Your task to perform on an android device: turn off notifications in google photos Image 0: 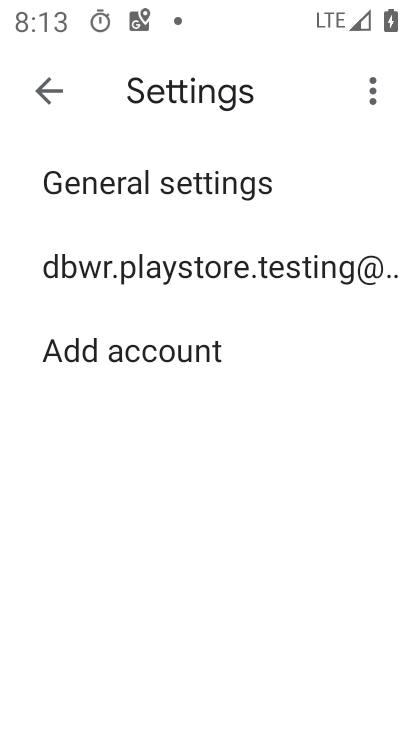
Step 0: press home button
Your task to perform on an android device: turn off notifications in google photos Image 1: 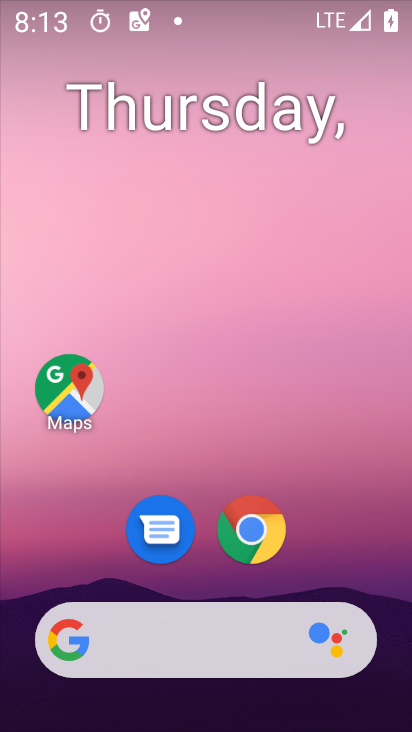
Step 1: drag from (380, 577) to (377, 276)
Your task to perform on an android device: turn off notifications in google photos Image 2: 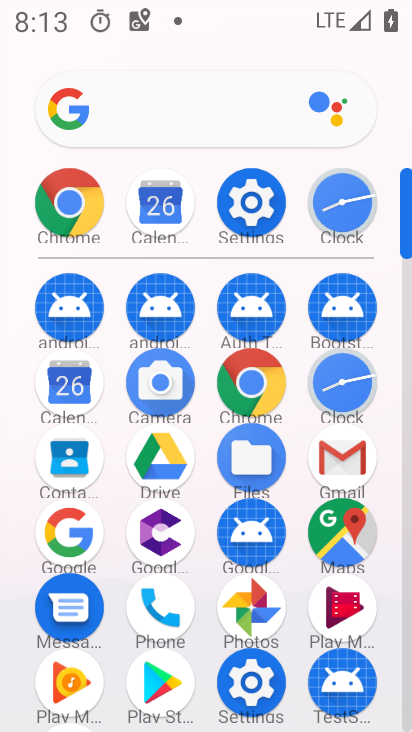
Step 2: click (266, 608)
Your task to perform on an android device: turn off notifications in google photos Image 3: 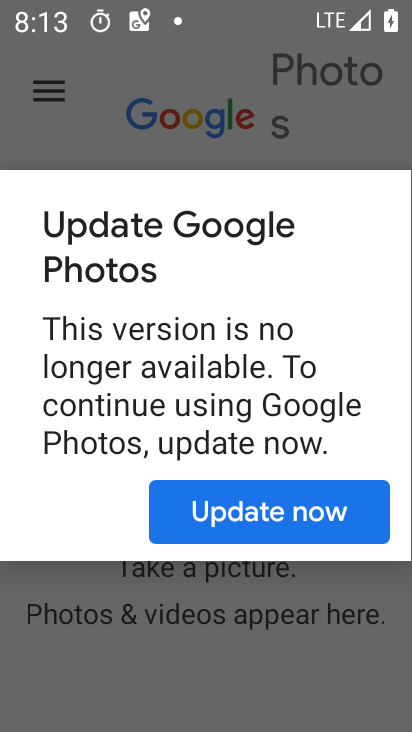
Step 3: click (337, 524)
Your task to perform on an android device: turn off notifications in google photos Image 4: 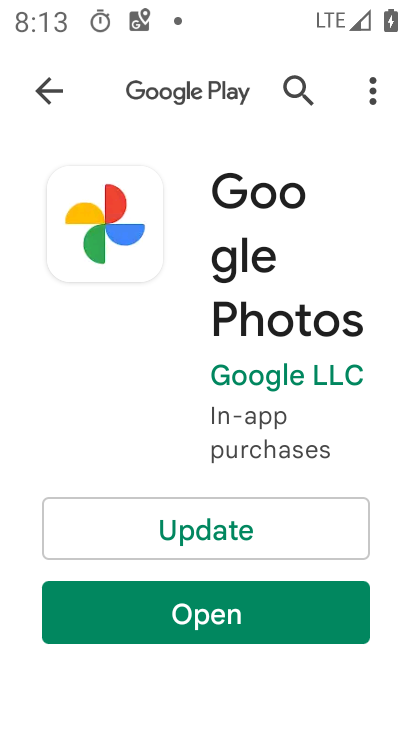
Step 4: click (257, 513)
Your task to perform on an android device: turn off notifications in google photos Image 5: 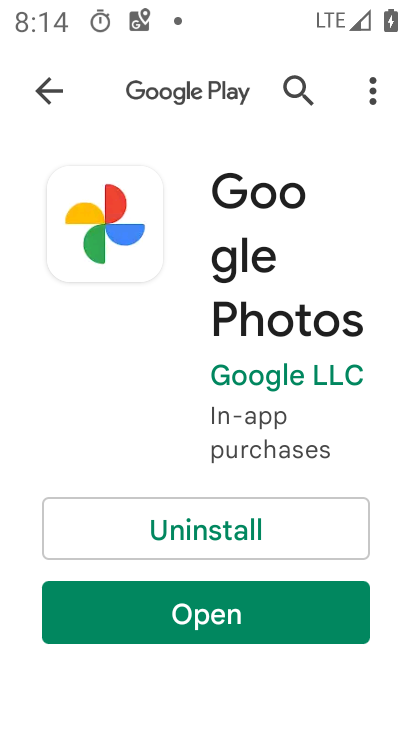
Step 5: click (314, 613)
Your task to perform on an android device: turn off notifications in google photos Image 6: 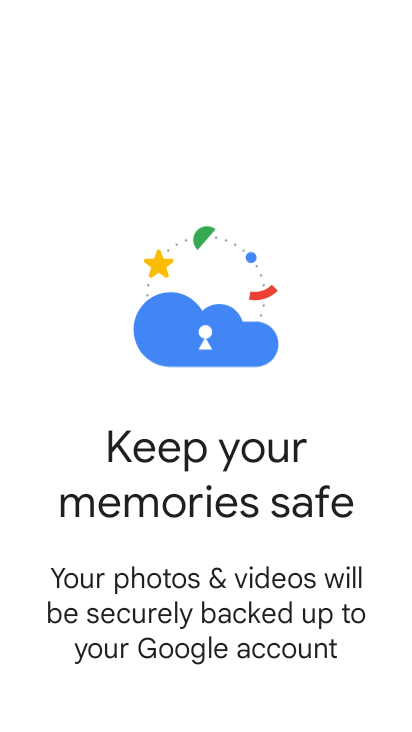
Step 6: drag from (314, 613) to (324, 456)
Your task to perform on an android device: turn off notifications in google photos Image 7: 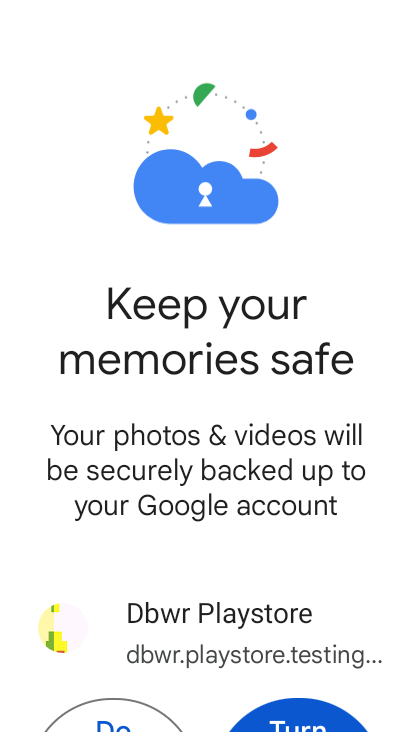
Step 7: drag from (351, 511) to (359, 283)
Your task to perform on an android device: turn off notifications in google photos Image 8: 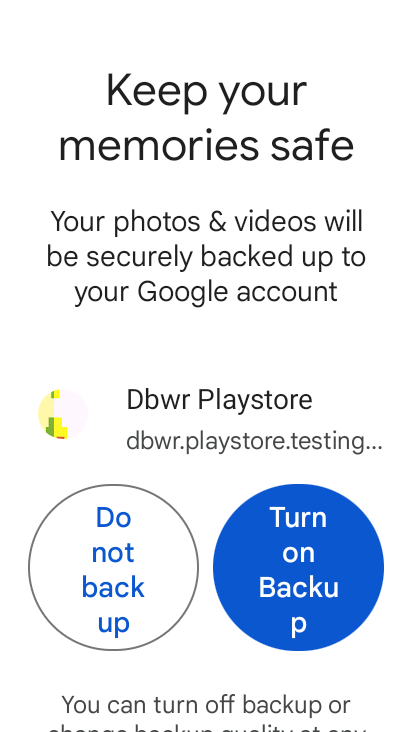
Step 8: click (276, 573)
Your task to perform on an android device: turn off notifications in google photos Image 9: 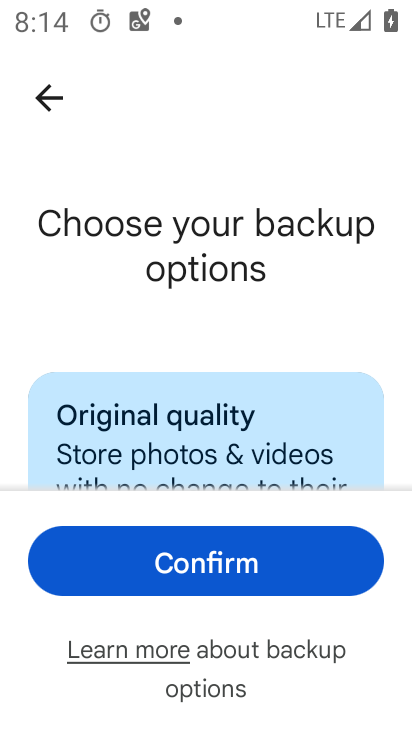
Step 9: click (277, 571)
Your task to perform on an android device: turn off notifications in google photos Image 10: 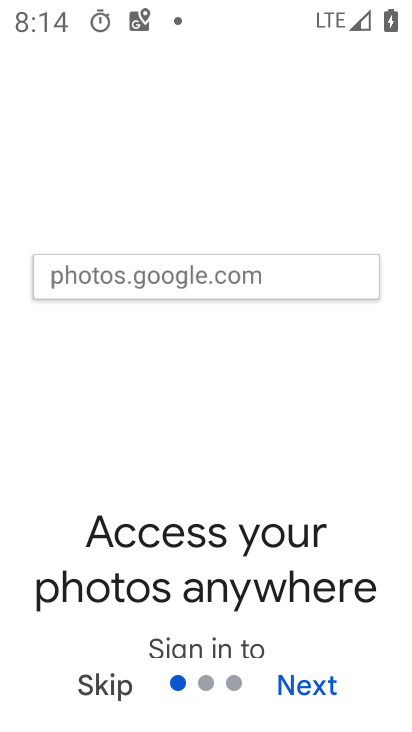
Step 10: click (330, 677)
Your task to perform on an android device: turn off notifications in google photos Image 11: 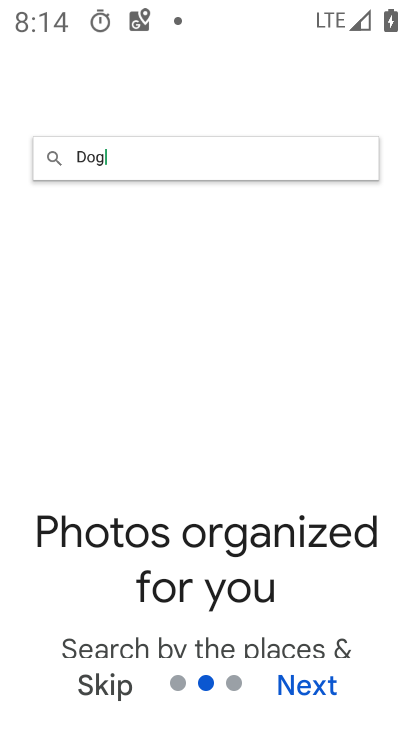
Step 11: click (330, 677)
Your task to perform on an android device: turn off notifications in google photos Image 12: 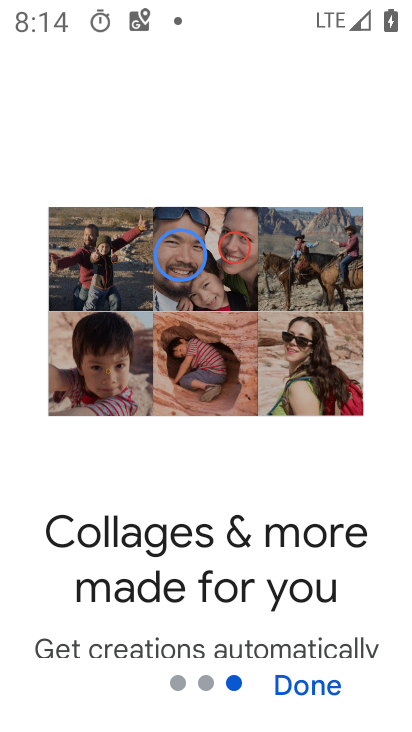
Step 12: click (330, 677)
Your task to perform on an android device: turn off notifications in google photos Image 13: 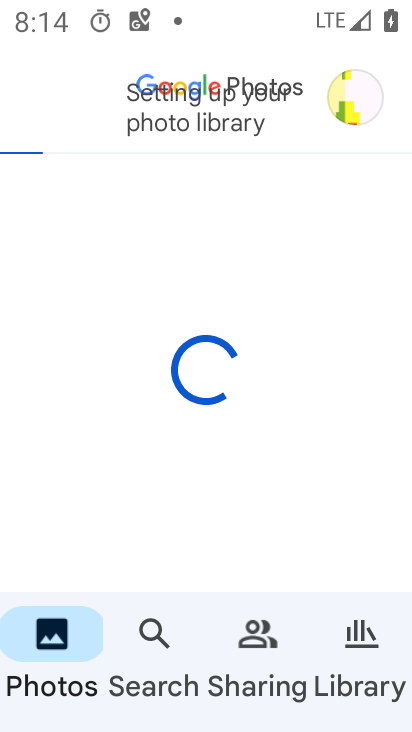
Step 13: click (347, 101)
Your task to perform on an android device: turn off notifications in google photos Image 14: 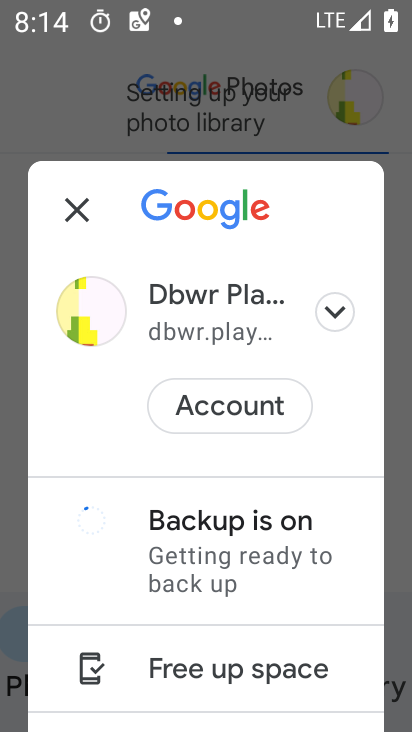
Step 14: drag from (306, 560) to (330, 361)
Your task to perform on an android device: turn off notifications in google photos Image 15: 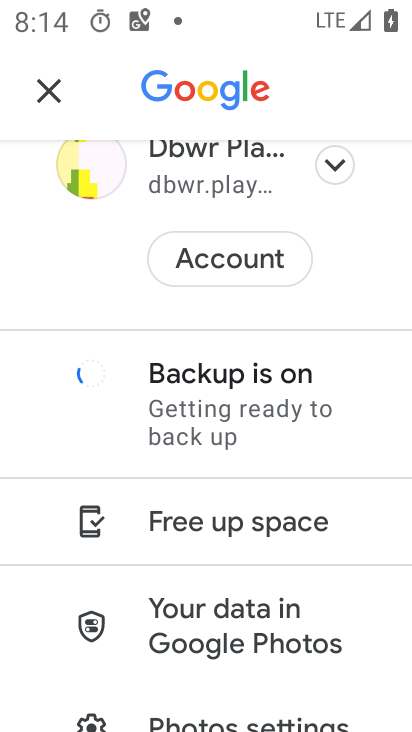
Step 15: drag from (326, 612) to (351, 334)
Your task to perform on an android device: turn off notifications in google photos Image 16: 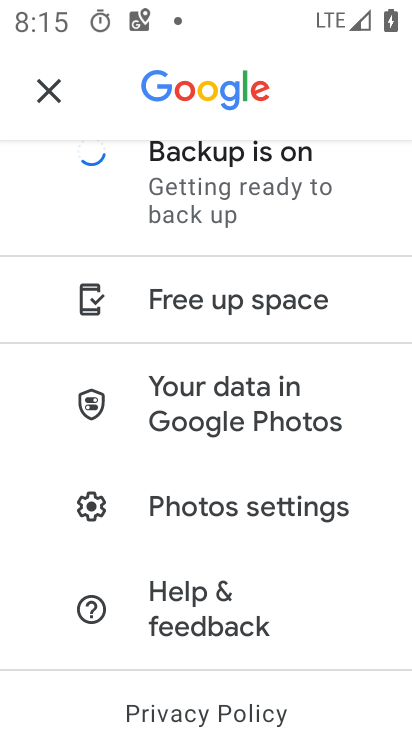
Step 16: click (311, 503)
Your task to perform on an android device: turn off notifications in google photos Image 17: 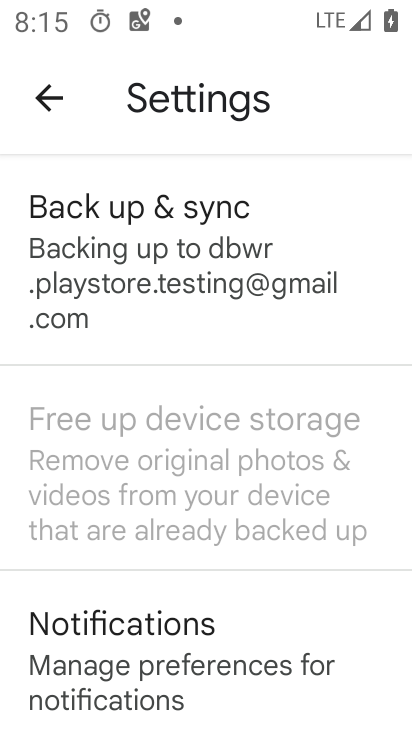
Step 17: click (238, 643)
Your task to perform on an android device: turn off notifications in google photos Image 18: 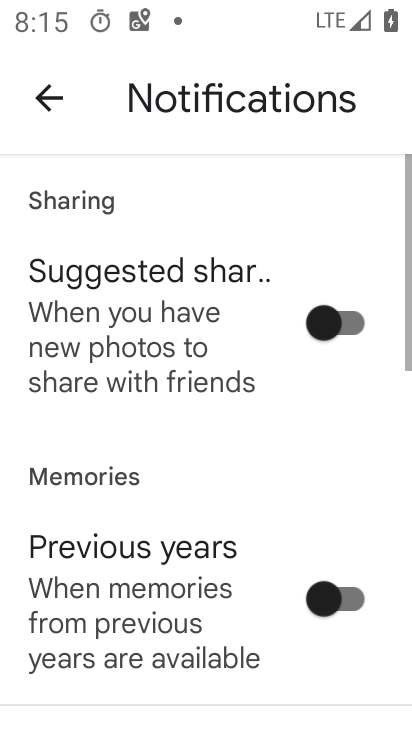
Step 18: drag from (293, 604) to (292, 365)
Your task to perform on an android device: turn off notifications in google photos Image 19: 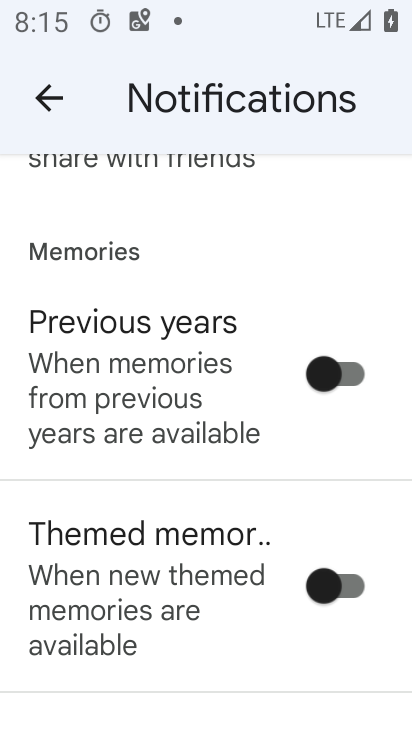
Step 19: drag from (249, 610) to (270, 428)
Your task to perform on an android device: turn off notifications in google photos Image 20: 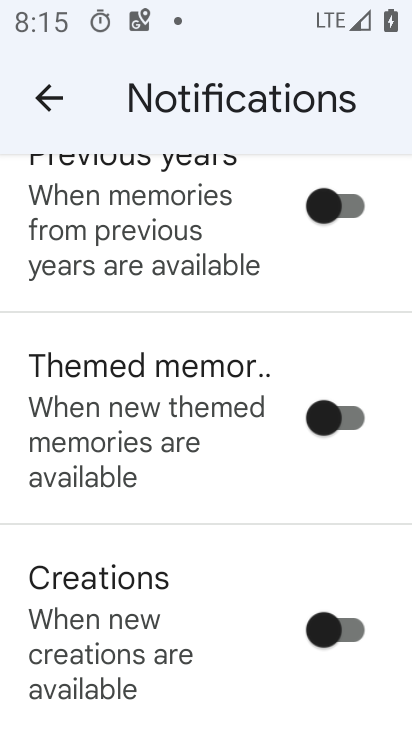
Step 20: drag from (243, 602) to (243, 463)
Your task to perform on an android device: turn off notifications in google photos Image 21: 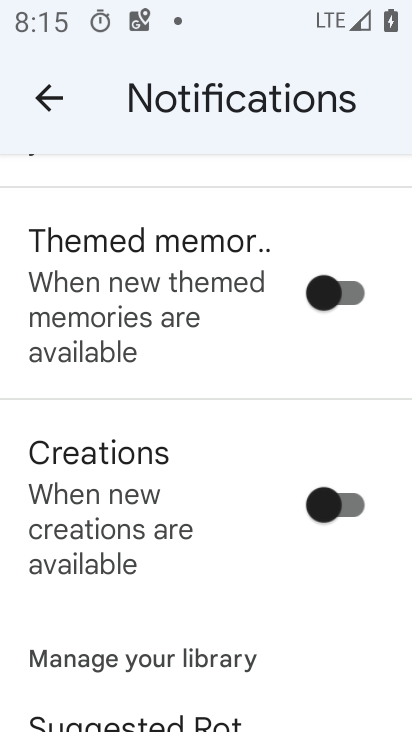
Step 21: drag from (237, 666) to (247, 504)
Your task to perform on an android device: turn off notifications in google photos Image 22: 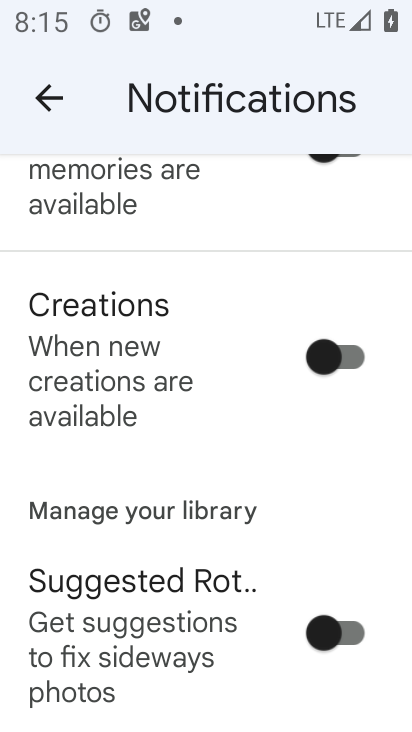
Step 22: drag from (252, 661) to (260, 505)
Your task to perform on an android device: turn off notifications in google photos Image 23: 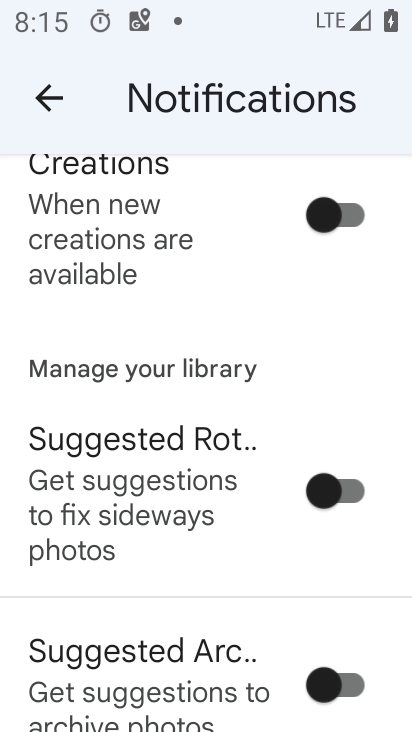
Step 23: drag from (250, 656) to (257, 491)
Your task to perform on an android device: turn off notifications in google photos Image 24: 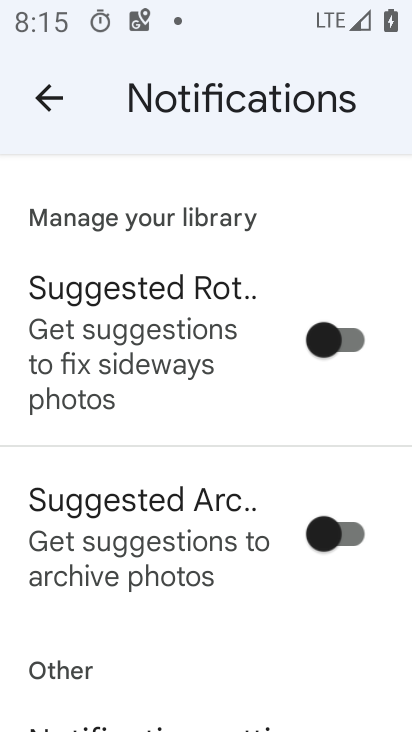
Step 24: drag from (258, 609) to (255, 461)
Your task to perform on an android device: turn off notifications in google photos Image 25: 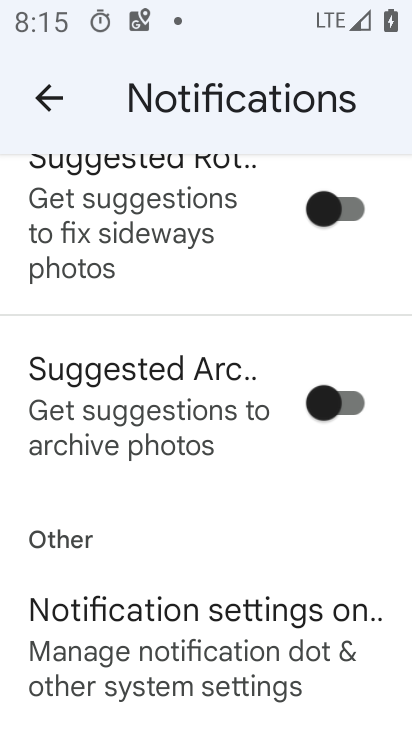
Step 25: drag from (252, 633) to (266, 452)
Your task to perform on an android device: turn off notifications in google photos Image 26: 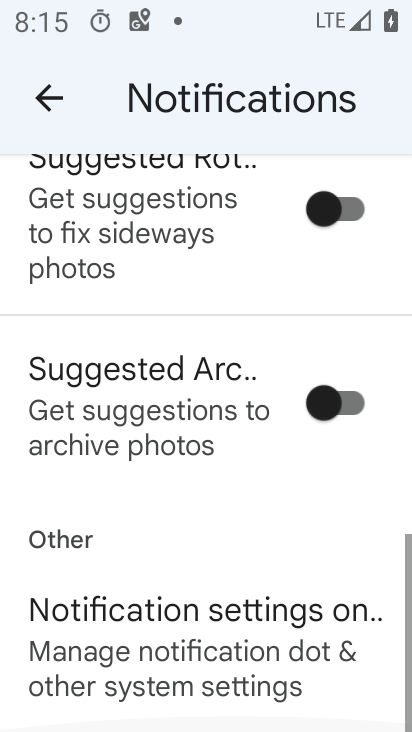
Step 26: click (256, 609)
Your task to perform on an android device: turn off notifications in google photos Image 27: 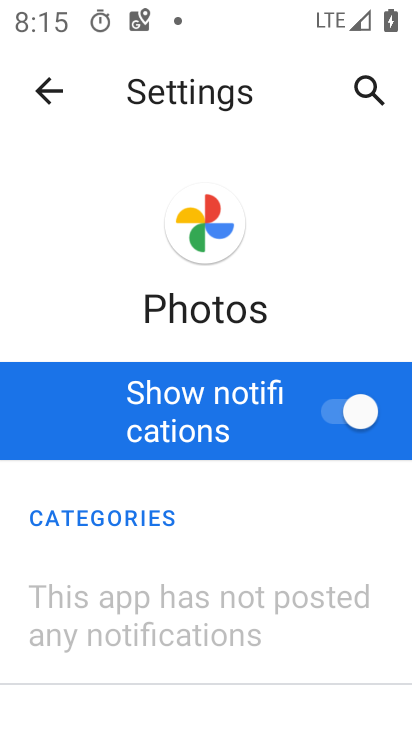
Step 27: click (370, 402)
Your task to perform on an android device: turn off notifications in google photos Image 28: 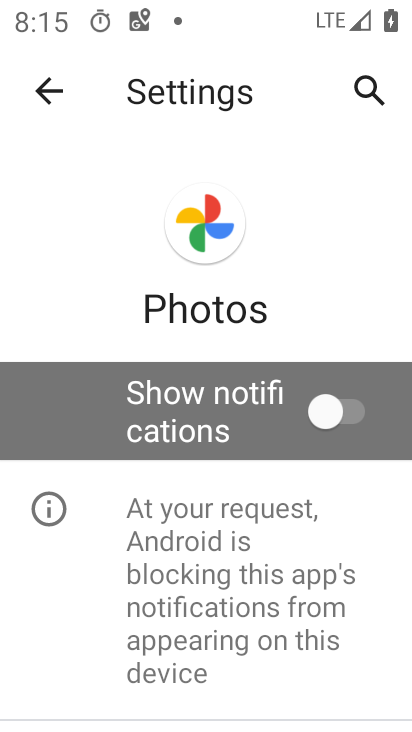
Step 28: task complete